Your task to perform on an android device: Open Amazon Image 0: 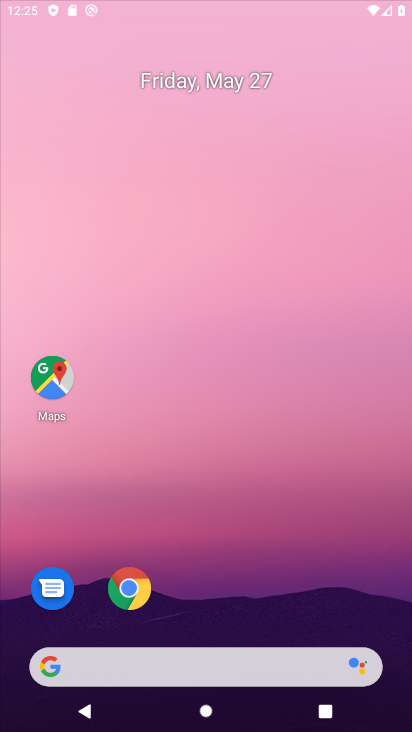
Step 0: press home button
Your task to perform on an android device: Open Amazon Image 1: 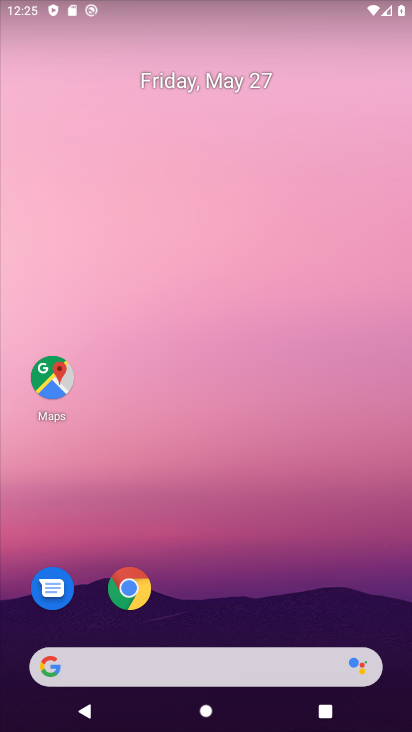
Step 1: drag from (226, 613) to (230, 121)
Your task to perform on an android device: Open Amazon Image 2: 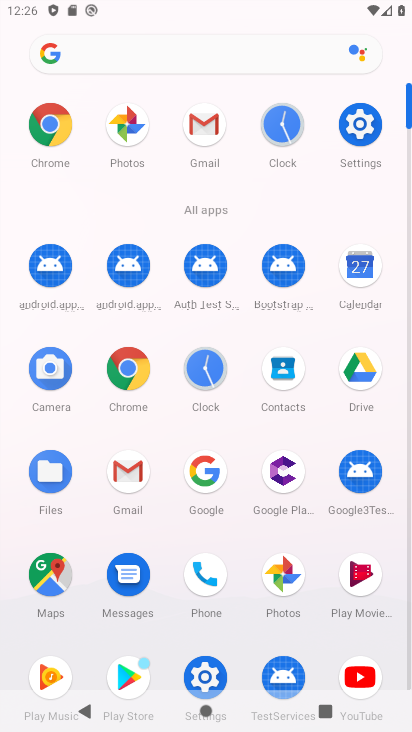
Step 2: click (124, 360)
Your task to perform on an android device: Open Amazon Image 3: 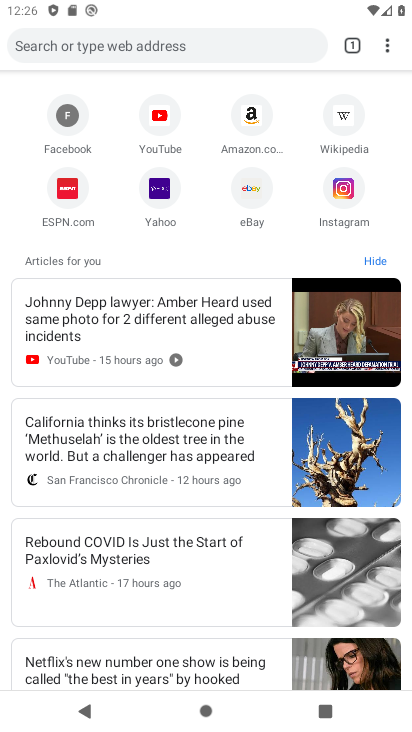
Step 3: click (249, 109)
Your task to perform on an android device: Open Amazon Image 4: 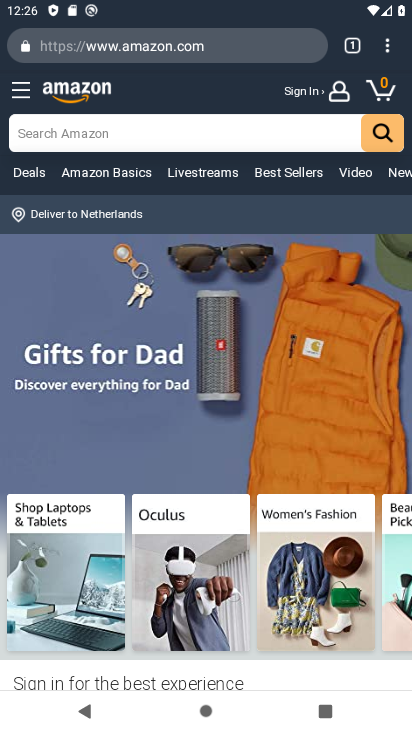
Step 4: task complete